Your task to perform on an android device: Open the map Image 0: 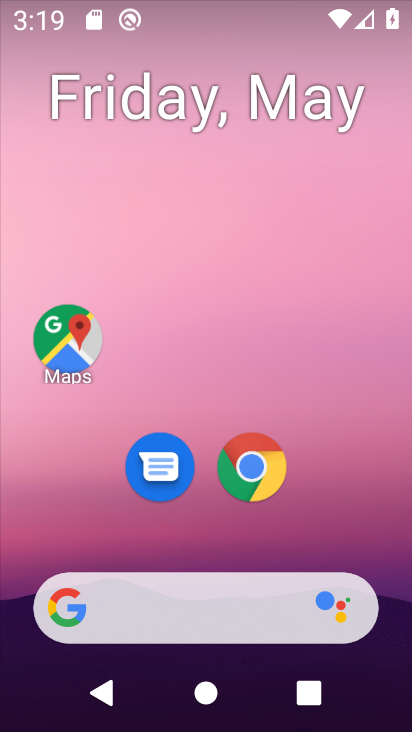
Step 0: click (68, 341)
Your task to perform on an android device: Open the map Image 1: 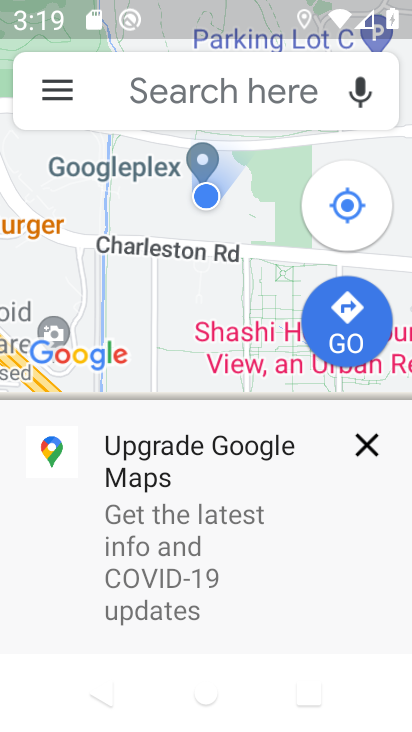
Step 1: task complete